Your task to perform on an android device: What's the weather going to be this weekend? Image 0: 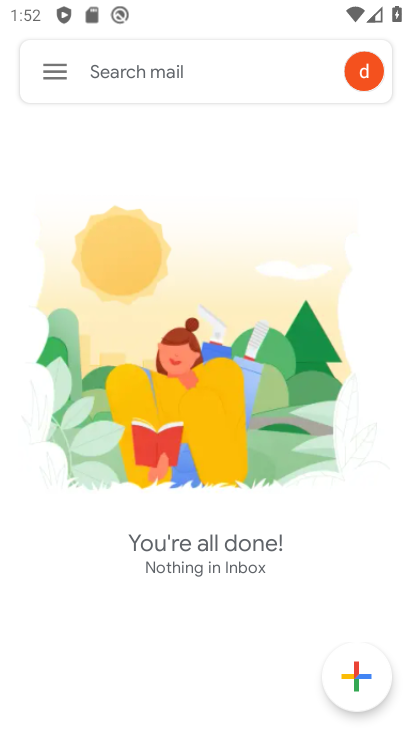
Step 0: press home button
Your task to perform on an android device: What's the weather going to be this weekend? Image 1: 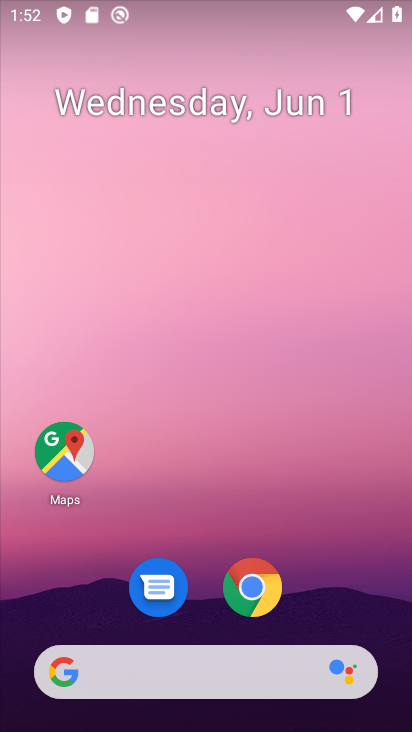
Step 1: drag from (351, 592) to (284, 202)
Your task to perform on an android device: What's the weather going to be this weekend? Image 2: 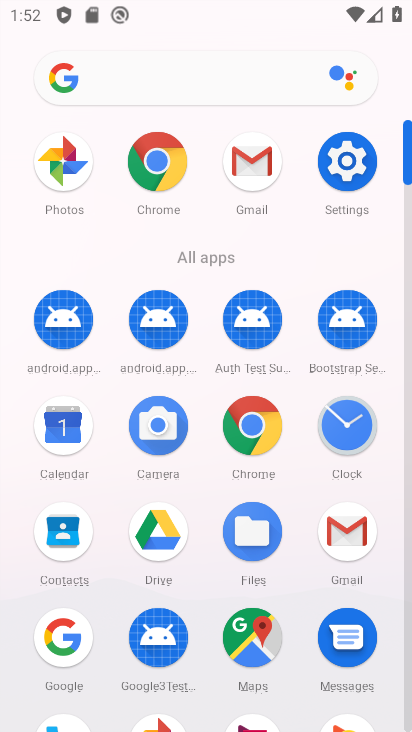
Step 2: click (68, 645)
Your task to perform on an android device: What's the weather going to be this weekend? Image 3: 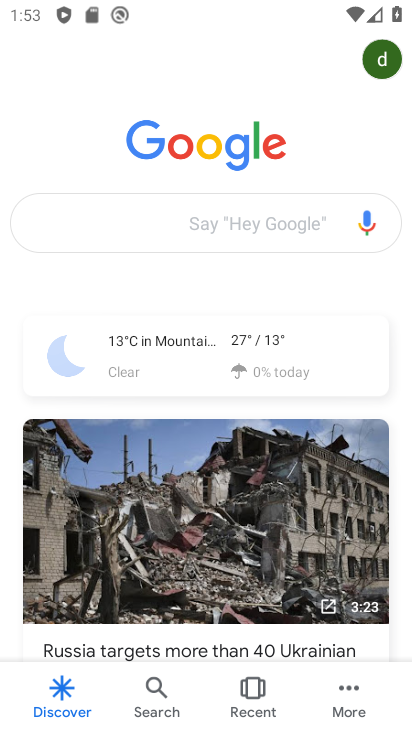
Step 3: click (179, 230)
Your task to perform on an android device: What's the weather going to be this weekend? Image 4: 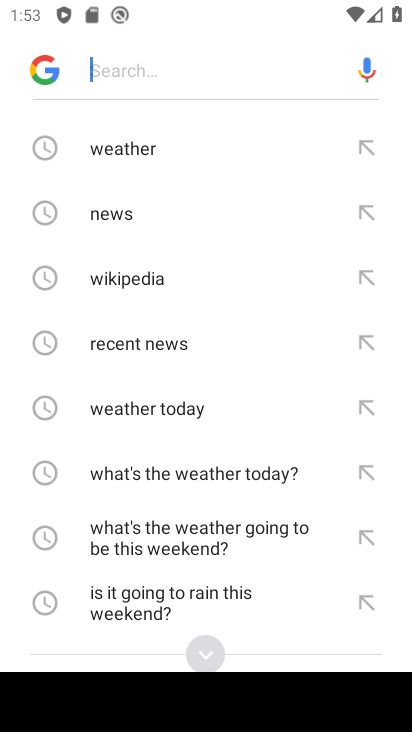
Step 4: type "What's the weather going to be this weekend?"
Your task to perform on an android device: What's the weather going to be this weekend? Image 5: 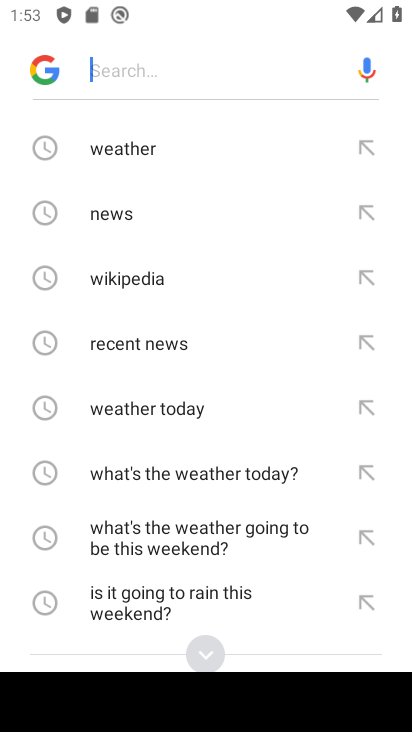
Step 5: click (211, 79)
Your task to perform on an android device: What's the weather going to be this weekend? Image 6: 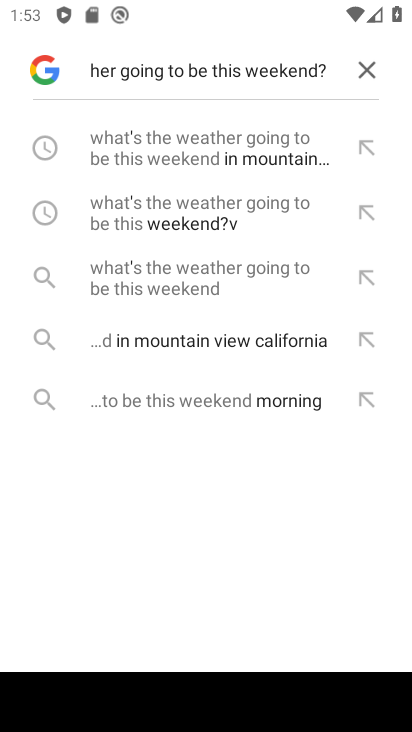
Step 6: click (188, 293)
Your task to perform on an android device: What's the weather going to be this weekend? Image 7: 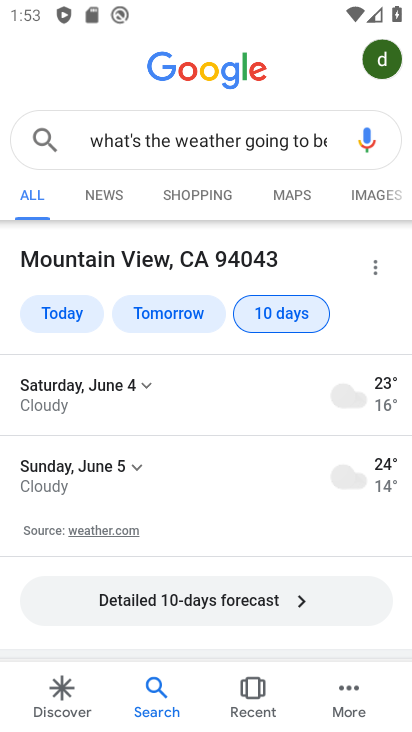
Step 7: task complete